Your task to perform on an android device: Open calendar and show me the third week of next month Image 0: 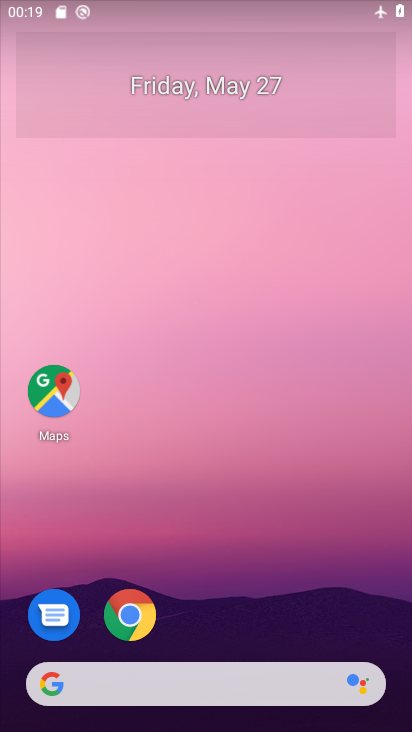
Step 0: drag from (381, 598) to (380, 227)
Your task to perform on an android device: Open calendar and show me the third week of next month Image 1: 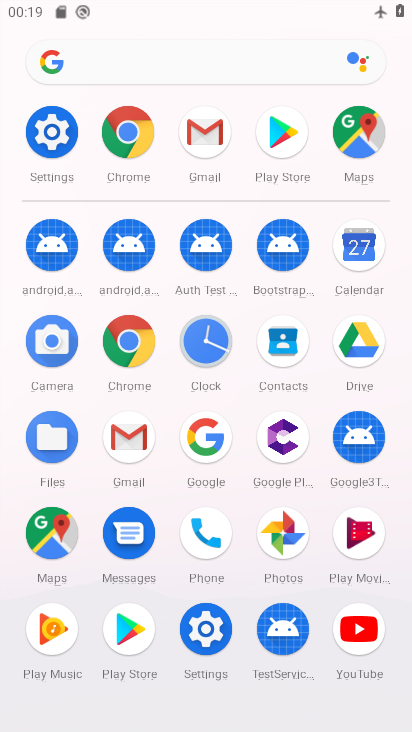
Step 1: click (372, 250)
Your task to perform on an android device: Open calendar and show me the third week of next month Image 2: 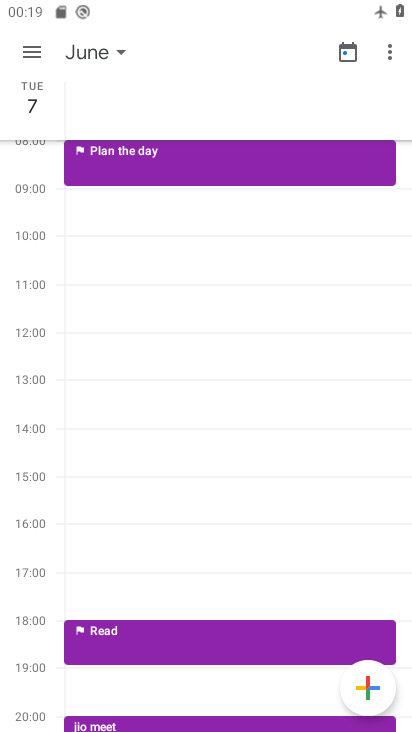
Step 2: click (124, 49)
Your task to perform on an android device: Open calendar and show me the third week of next month Image 3: 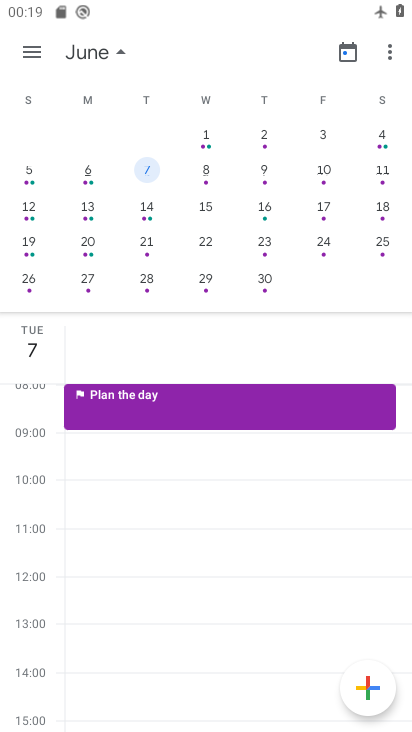
Step 3: drag from (34, 114) to (407, 329)
Your task to perform on an android device: Open calendar and show me the third week of next month Image 4: 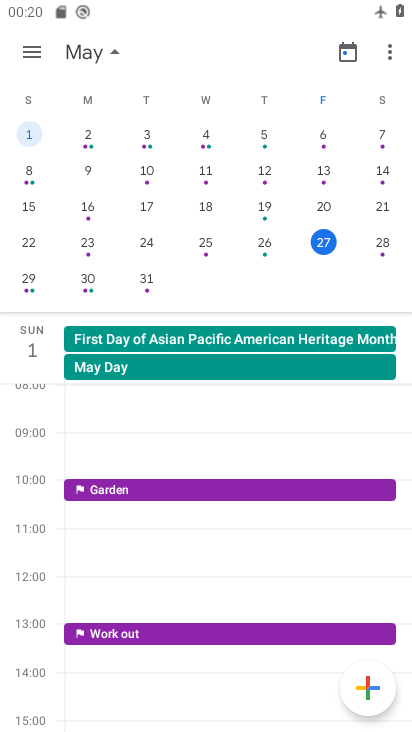
Step 4: drag from (375, 113) to (31, 112)
Your task to perform on an android device: Open calendar and show me the third week of next month Image 5: 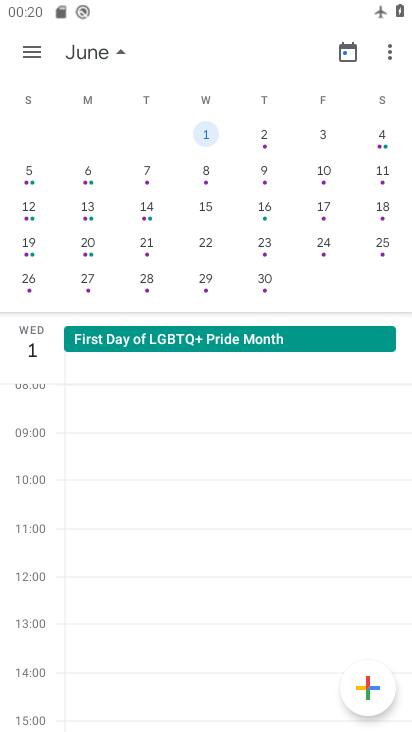
Step 5: click (91, 207)
Your task to perform on an android device: Open calendar and show me the third week of next month Image 6: 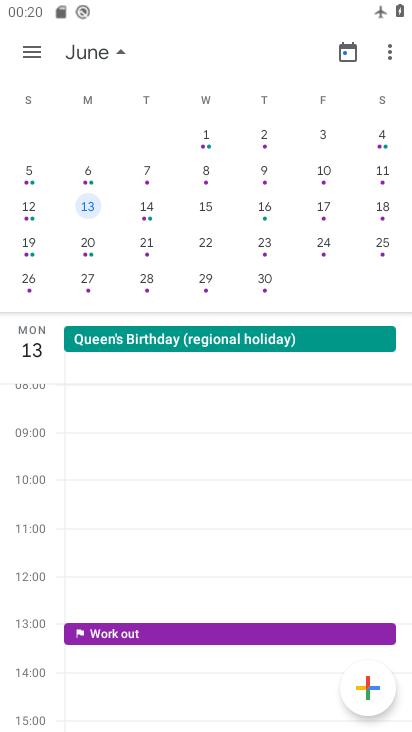
Step 6: task complete